Your task to perform on an android device: check android version Image 0: 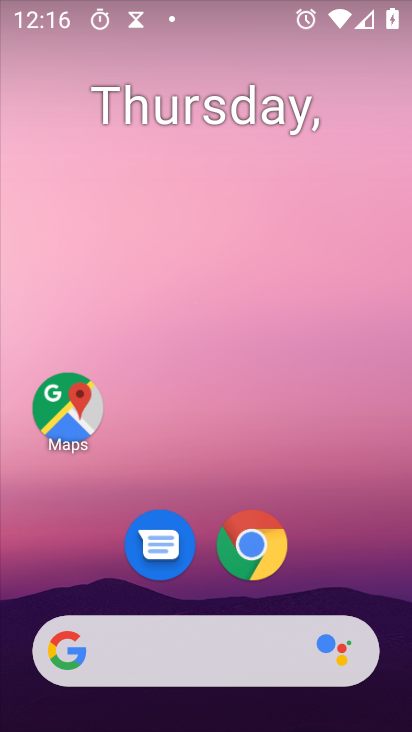
Step 0: press home button
Your task to perform on an android device: check android version Image 1: 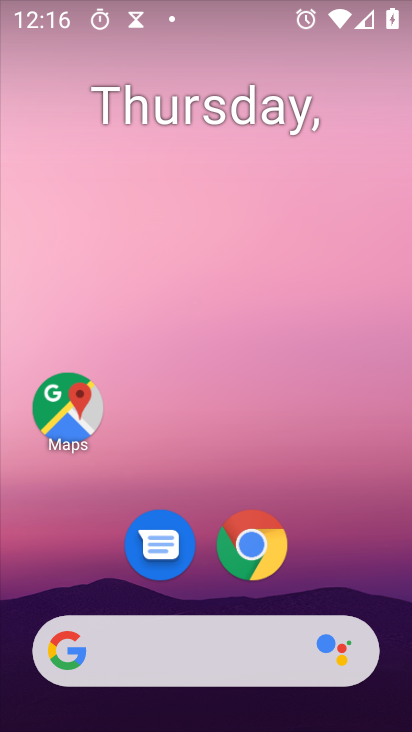
Step 1: drag from (203, 643) to (339, 57)
Your task to perform on an android device: check android version Image 2: 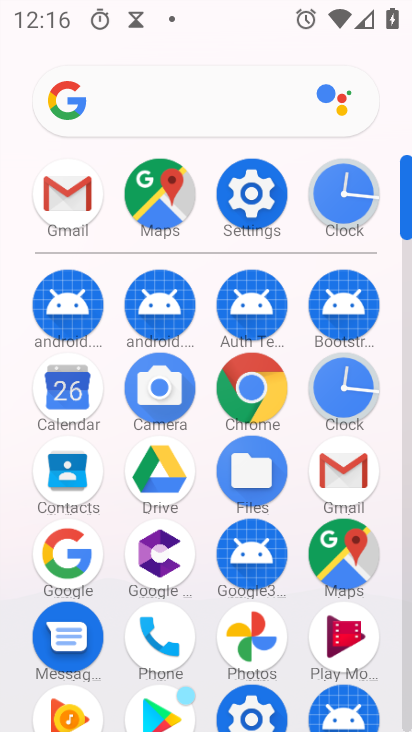
Step 2: click (251, 198)
Your task to perform on an android device: check android version Image 3: 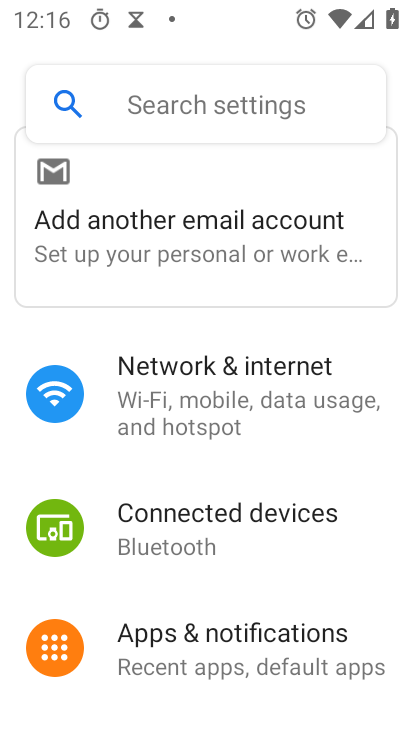
Step 3: drag from (240, 631) to (381, 87)
Your task to perform on an android device: check android version Image 4: 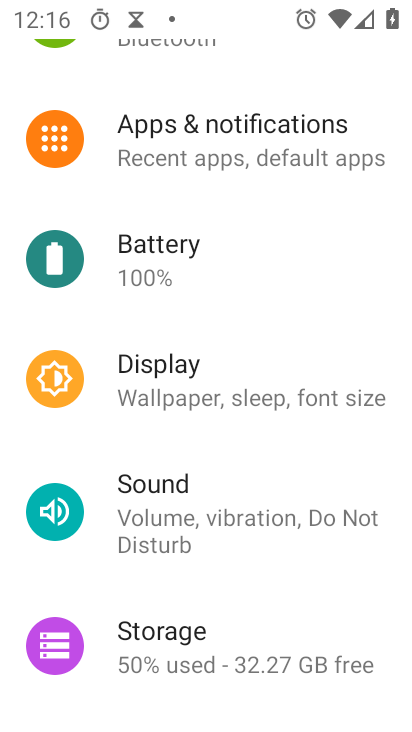
Step 4: drag from (206, 652) to (346, 41)
Your task to perform on an android device: check android version Image 5: 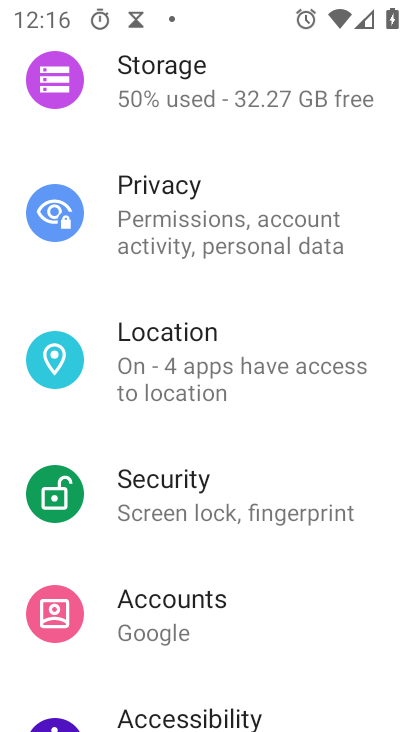
Step 5: drag from (236, 654) to (359, 88)
Your task to perform on an android device: check android version Image 6: 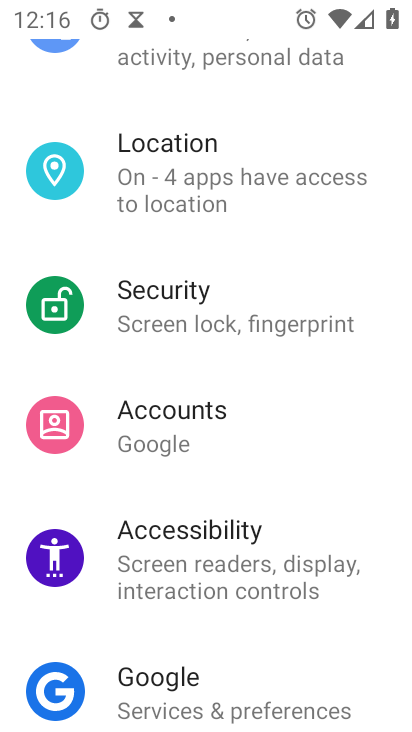
Step 6: drag from (242, 615) to (379, 0)
Your task to perform on an android device: check android version Image 7: 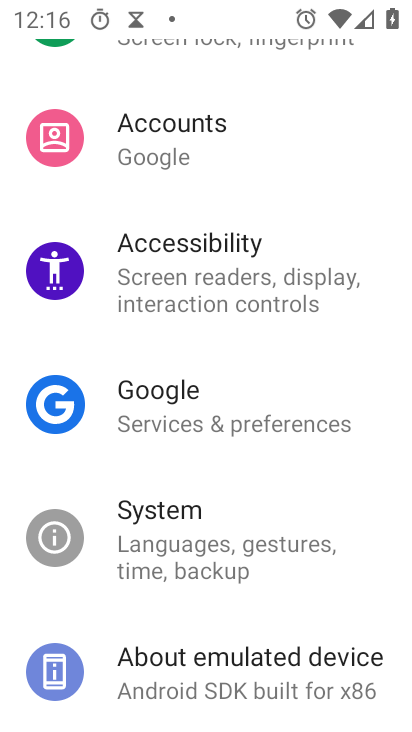
Step 7: click (243, 661)
Your task to perform on an android device: check android version Image 8: 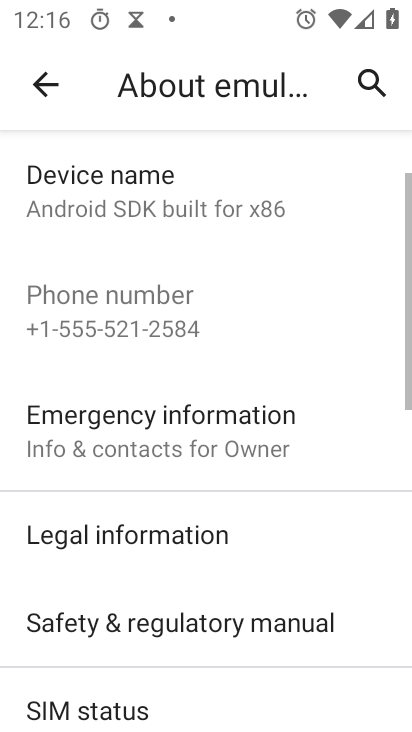
Step 8: task complete